Your task to perform on an android device: refresh tabs in the chrome app Image 0: 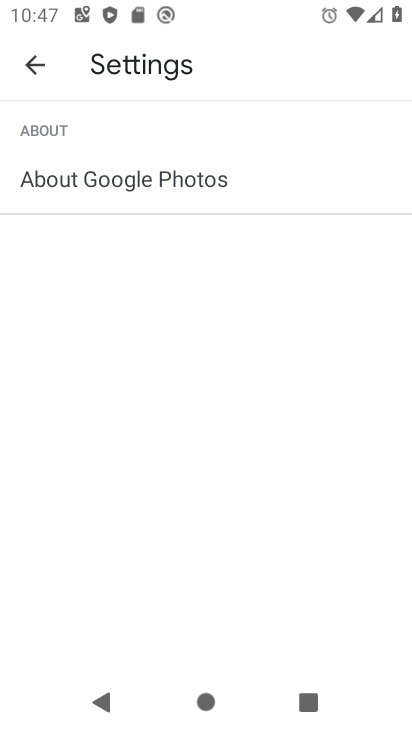
Step 0: press home button
Your task to perform on an android device: refresh tabs in the chrome app Image 1: 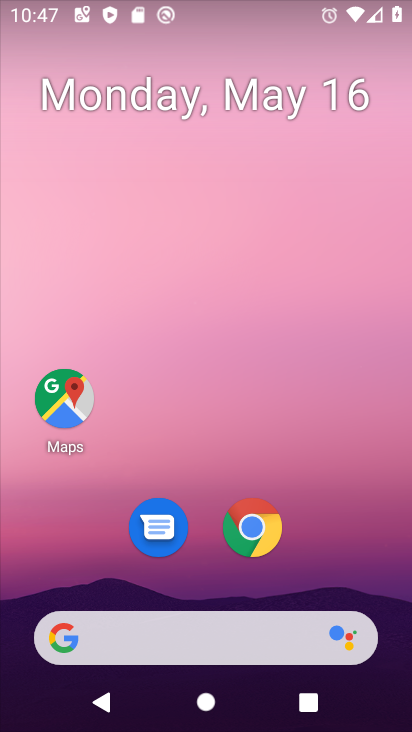
Step 1: click (262, 538)
Your task to perform on an android device: refresh tabs in the chrome app Image 2: 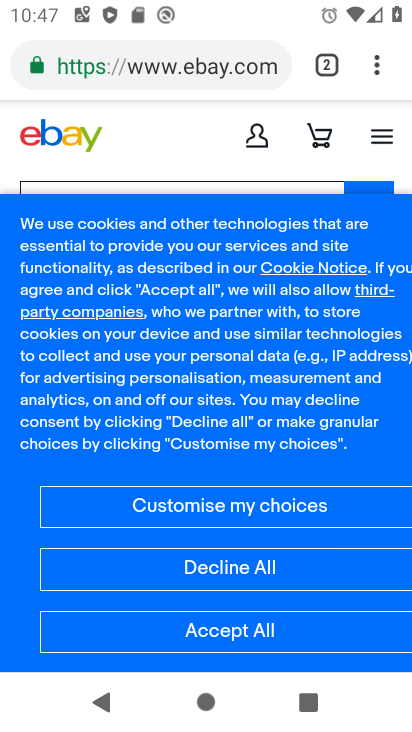
Step 2: click (380, 67)
Your task to perform on an android device: refresh tabs in the chrome app Image 3: 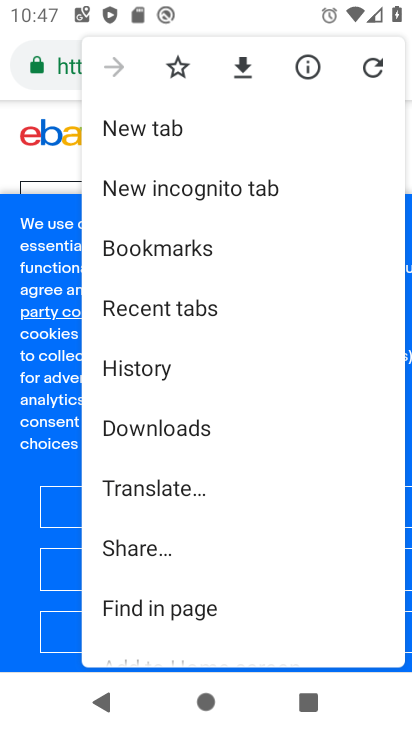
Step 3: click (368, 65)
Your task to perform on an android device: refresh tabs in the chrome app Image 4: 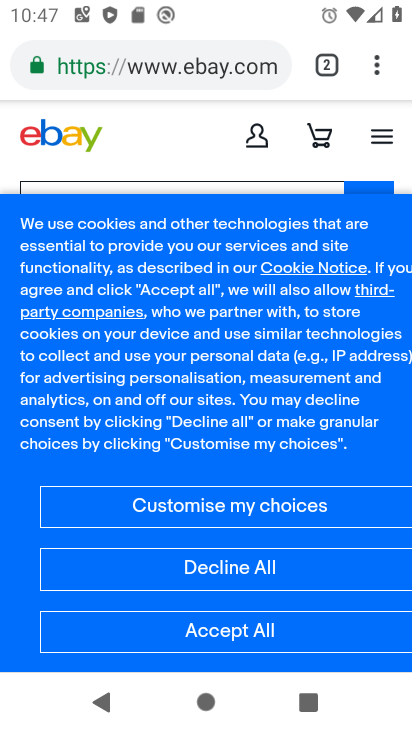
Step 4: task complete